Your task to perform on an android device: What's the weather going to be this weekend? Image 0: 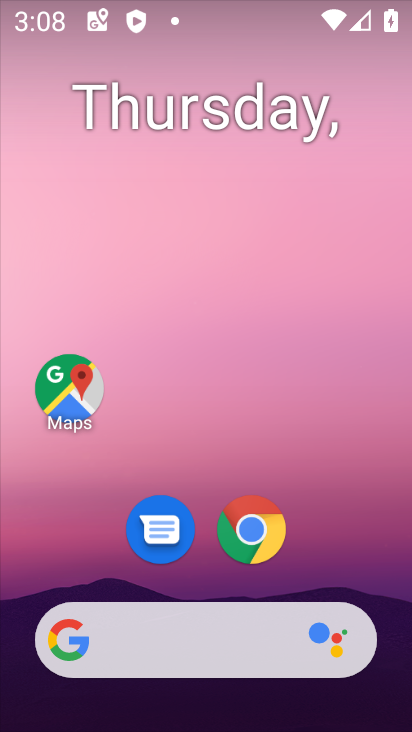
Step 0: drag from (329, 538) to (231, 2)
Your task to perform on an android device: What's the weather going to be this weekend? Image 1: 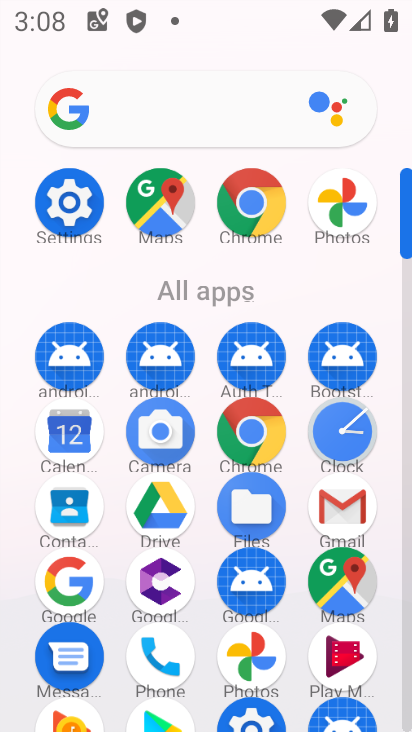
Step 1: click (63, 577)
Your task to perform on an android device: What's the weather going to be this weekend? Image 2: 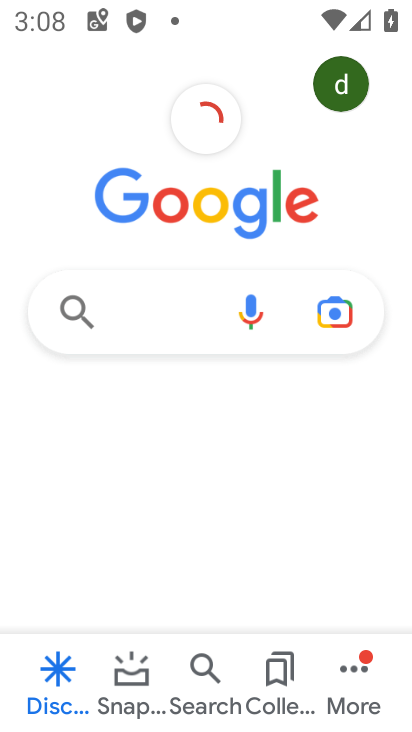
Step 2: click (182, 319)
Your task to perform on an android device: What's the weather going to be this weekend? Image 3: 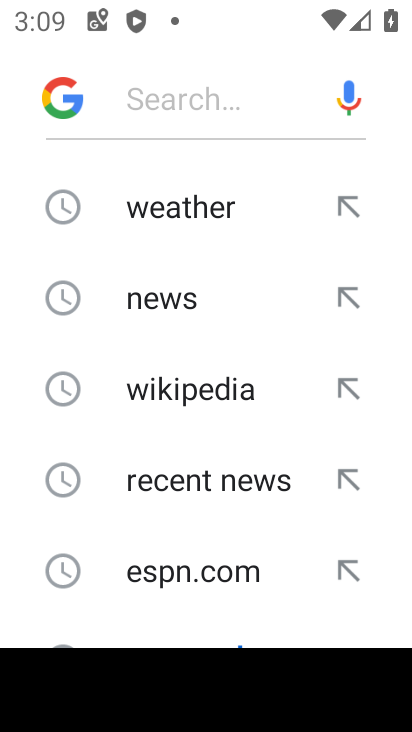
Step 3: type "weather weekend"
Your task to perform on an android device: What's the weather going to be this weekend? Image 4: 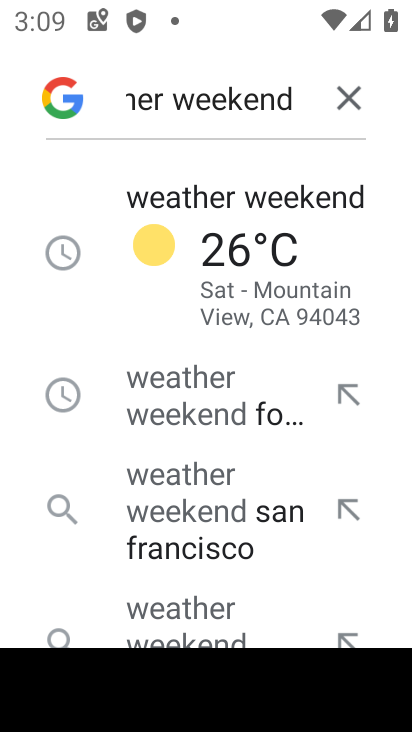
Step 4: click (187, 197)
Your task to perform on an android device: What's the weather going to be this weekend? Image 5: 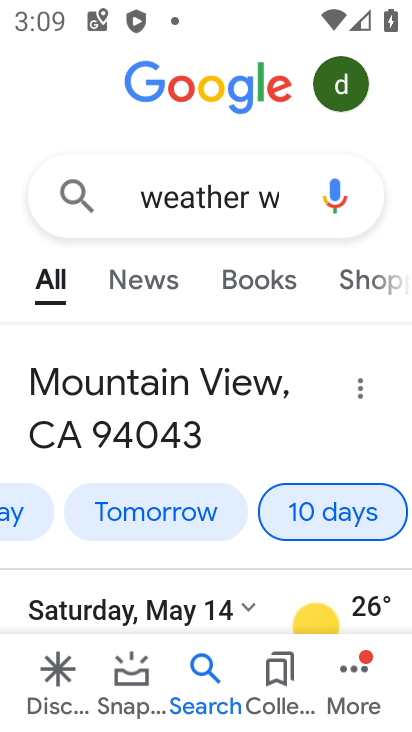
Step 5: task complete